Your task to perform on an android device: open app "Google Find My Device" (install if not already installed) Image 0: 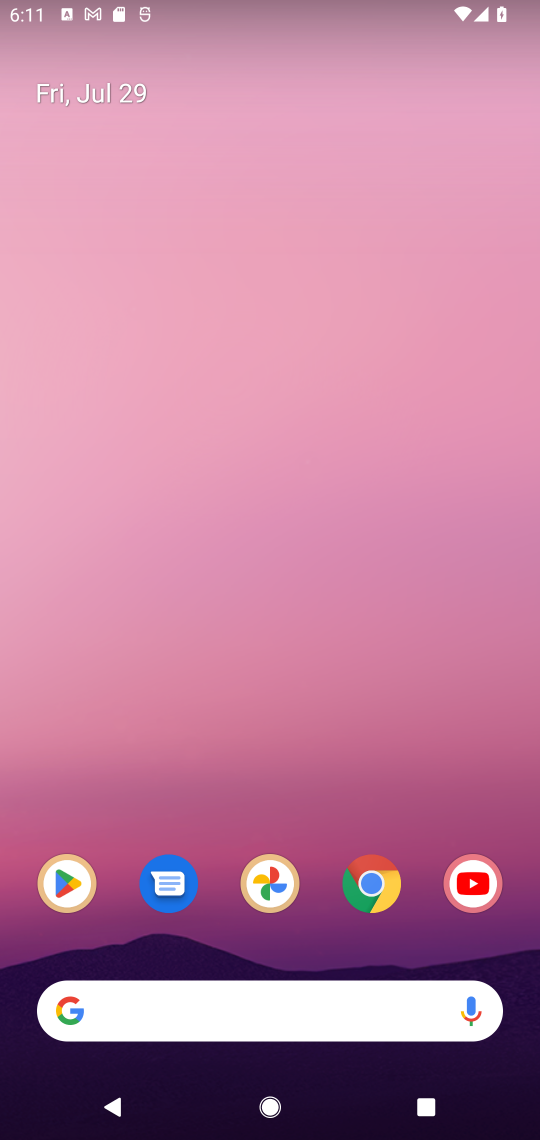
Step 0: click (65, 878)
Your task to perform on an android device: open app "Google Find My Device" (install if not already installed) Image 1: 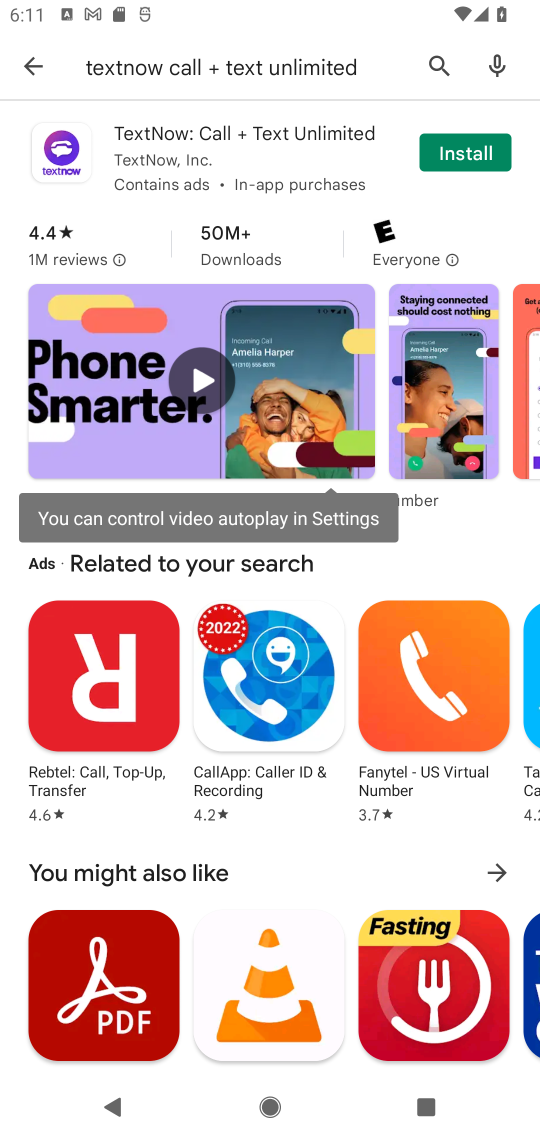
Step 1: click (435, 61)
Your task to perform on an android device: open app "Google Find My Device" (install if not already installed) Image 2: 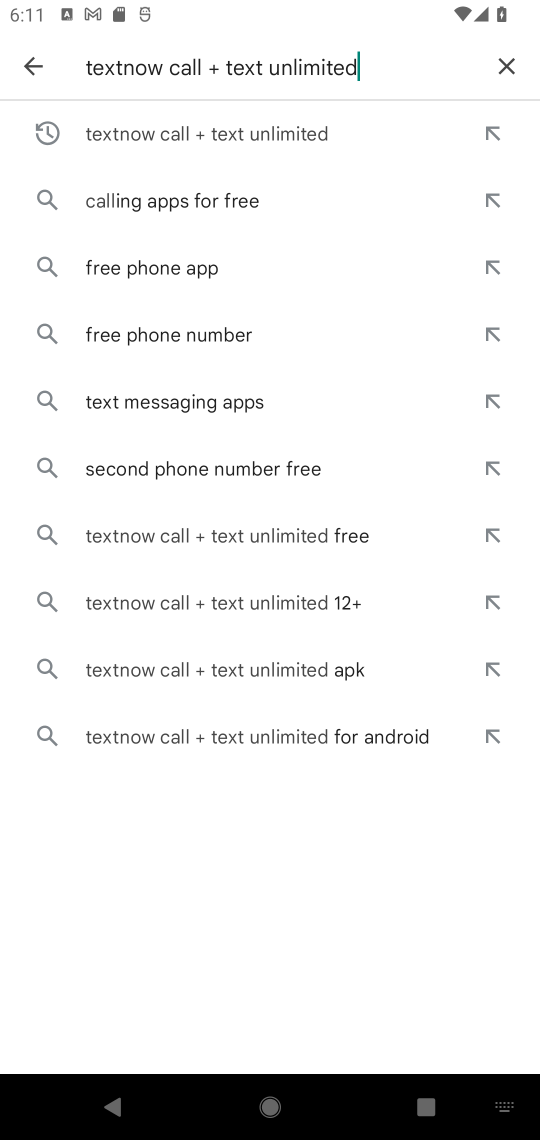
Step 2: click (533, 51)
Your task to perform on an android device: open app "Google Find My Device" (install if not already installed) Image 3: 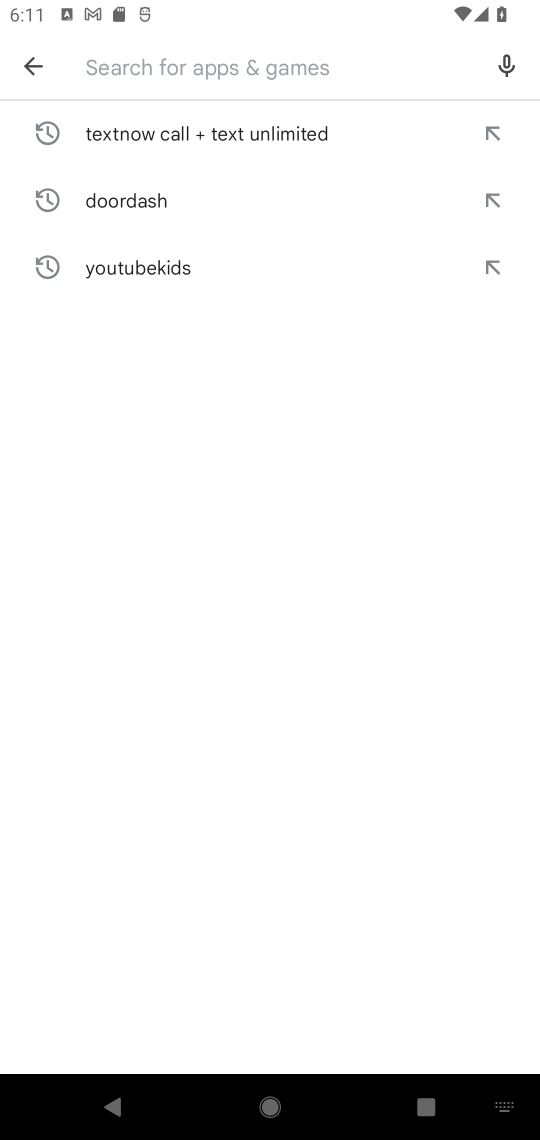
Step 3: click (165, 82)
Your task to perform on an android device: open app "Google Find My Device" (install if not already installed) Image 4: 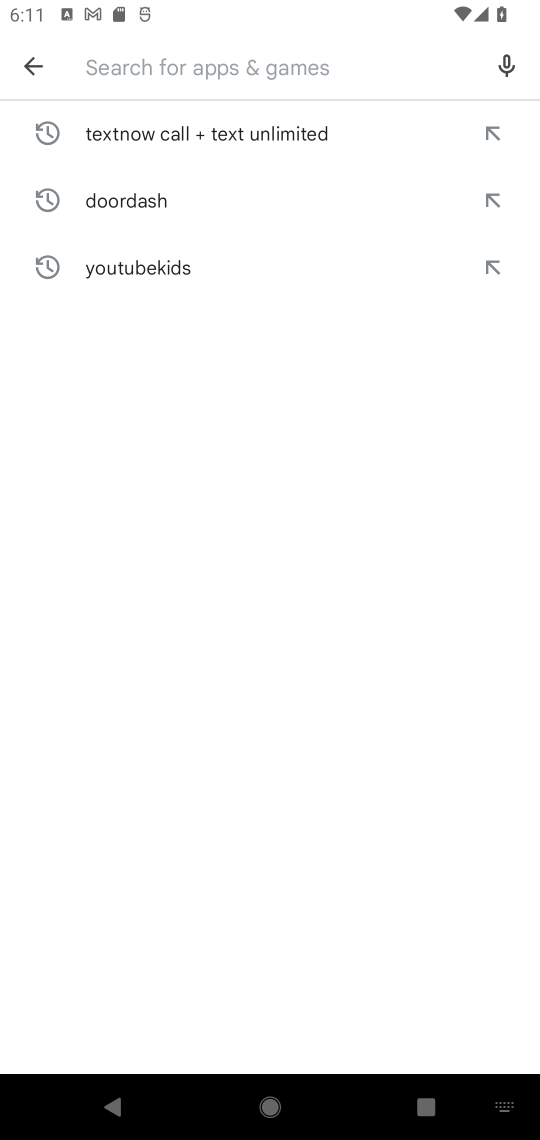
Step 4: type "google find my device"
Your task to perform on an android device: open app "Google Find My Device" (install if not already installed) Image 5: 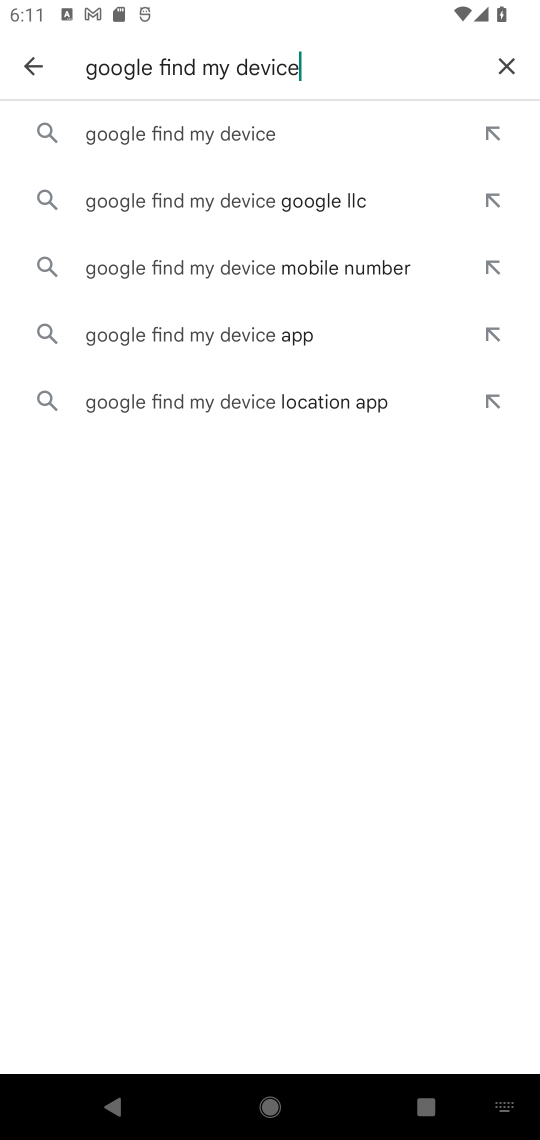
Step 5: click (199, 100)
Your task to perform on an android device: open app "Google Find My Device" (install if not already installed) Image 6: 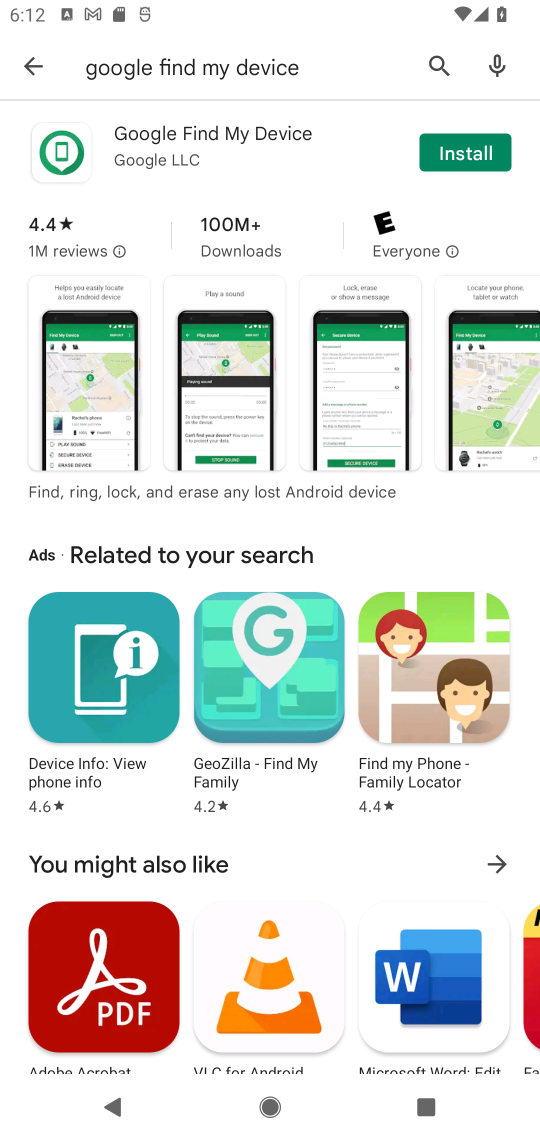
Step 6: click (460, 157)
Your task to perform on an android device: open app "Google Find My Device" (install if not already installed) Image 7: 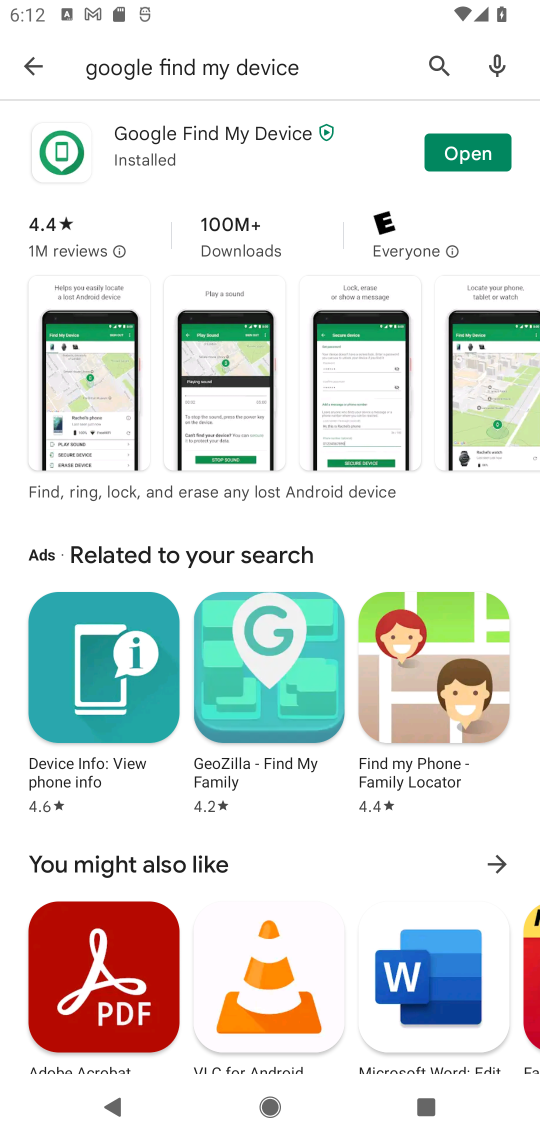
Step 7: click (464, 159)
Your task to perform on an android device: open app "Google Find My Device" (install if not already installed) Image 8: 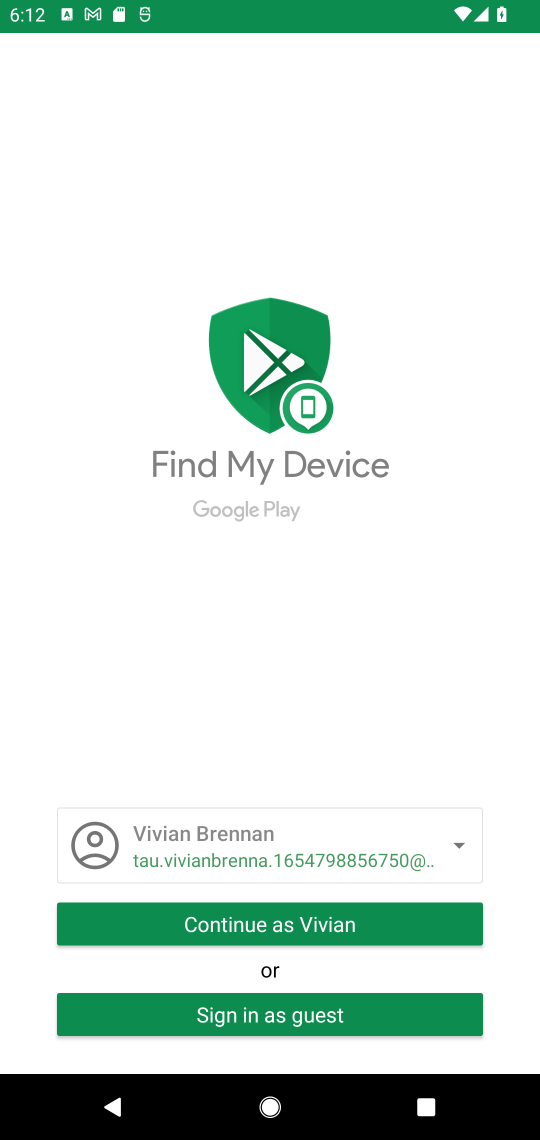
Step 8: task complete